Your task to perform on an android device: Open calendar and show me the second week of next month Image 0: 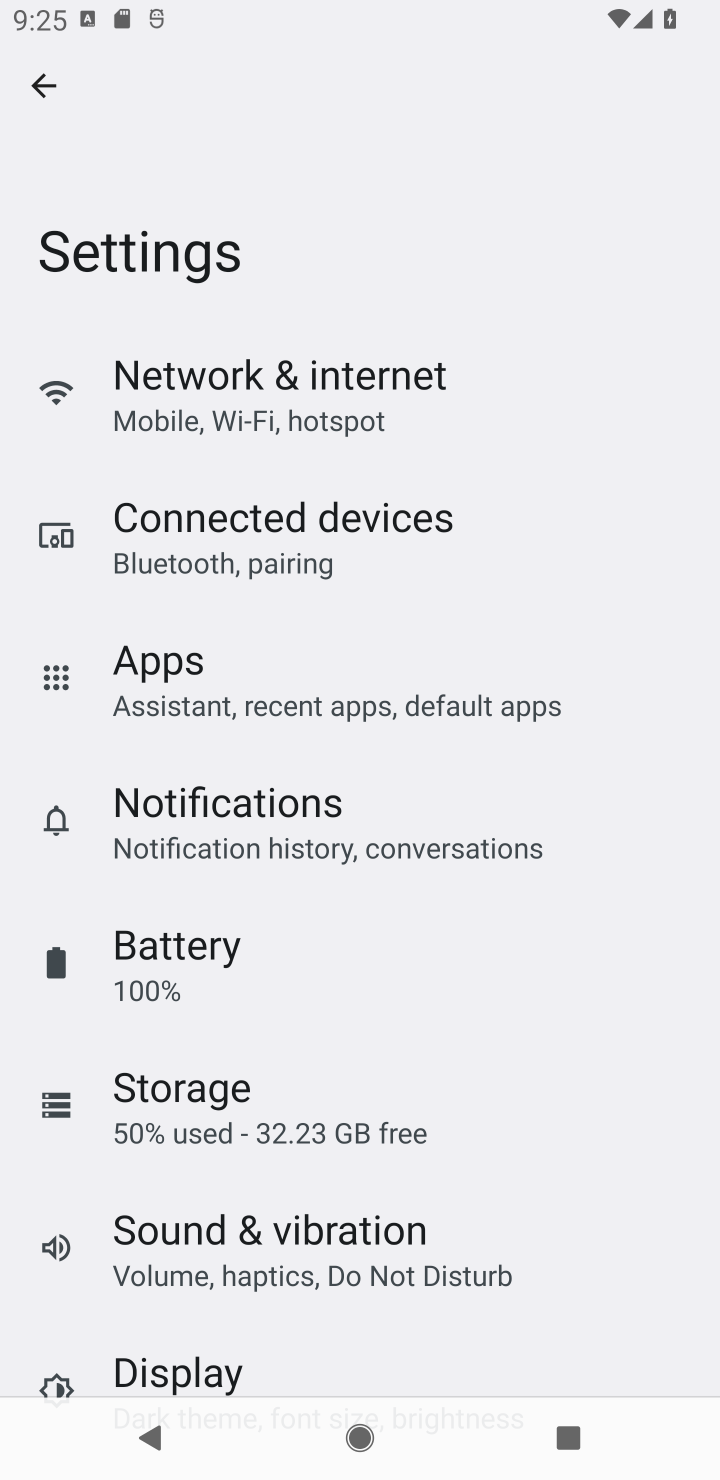
Step 0: press home button
Your task to perform on an android device: Open calendar and show me the second week of next month Image 1: 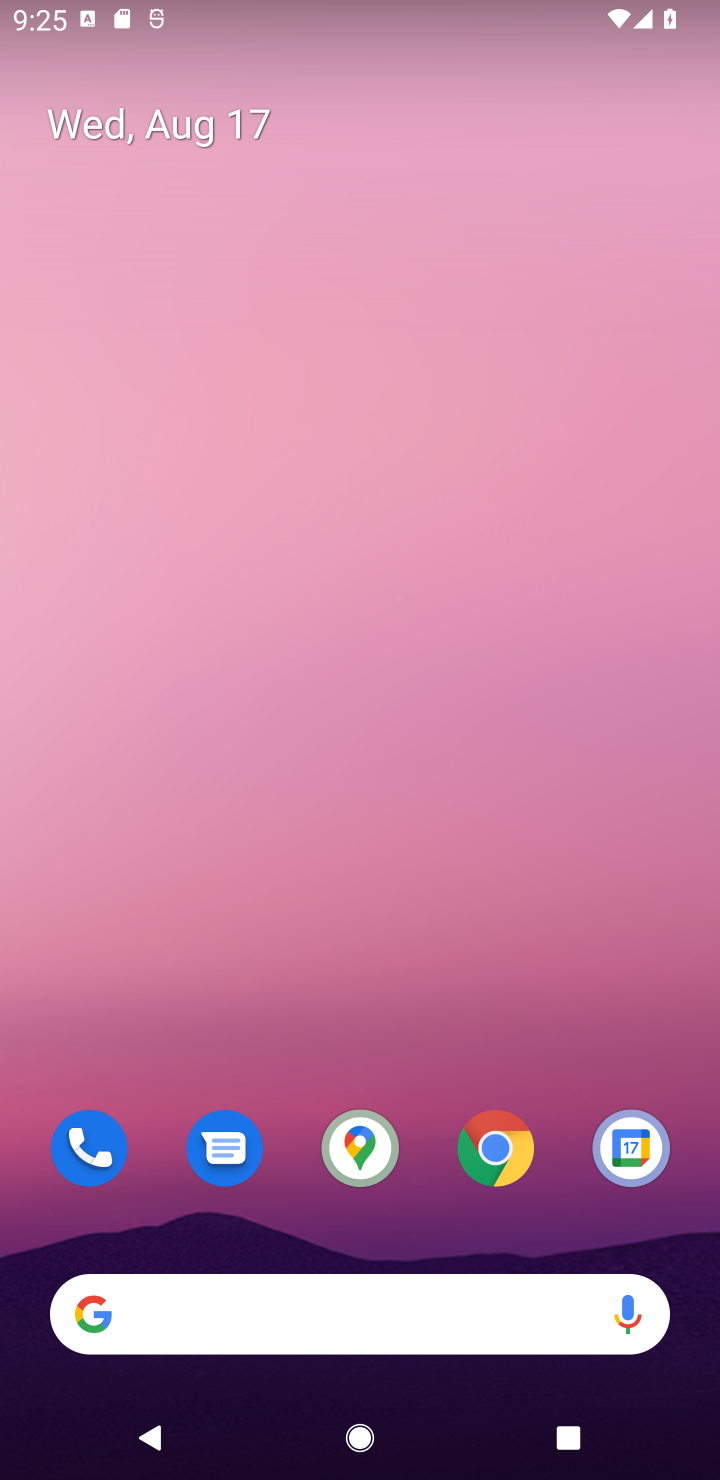
Step 1: click (633, 1147)
Your task to perform on an android device: Open calendar and show me the second week of next month Image 2: 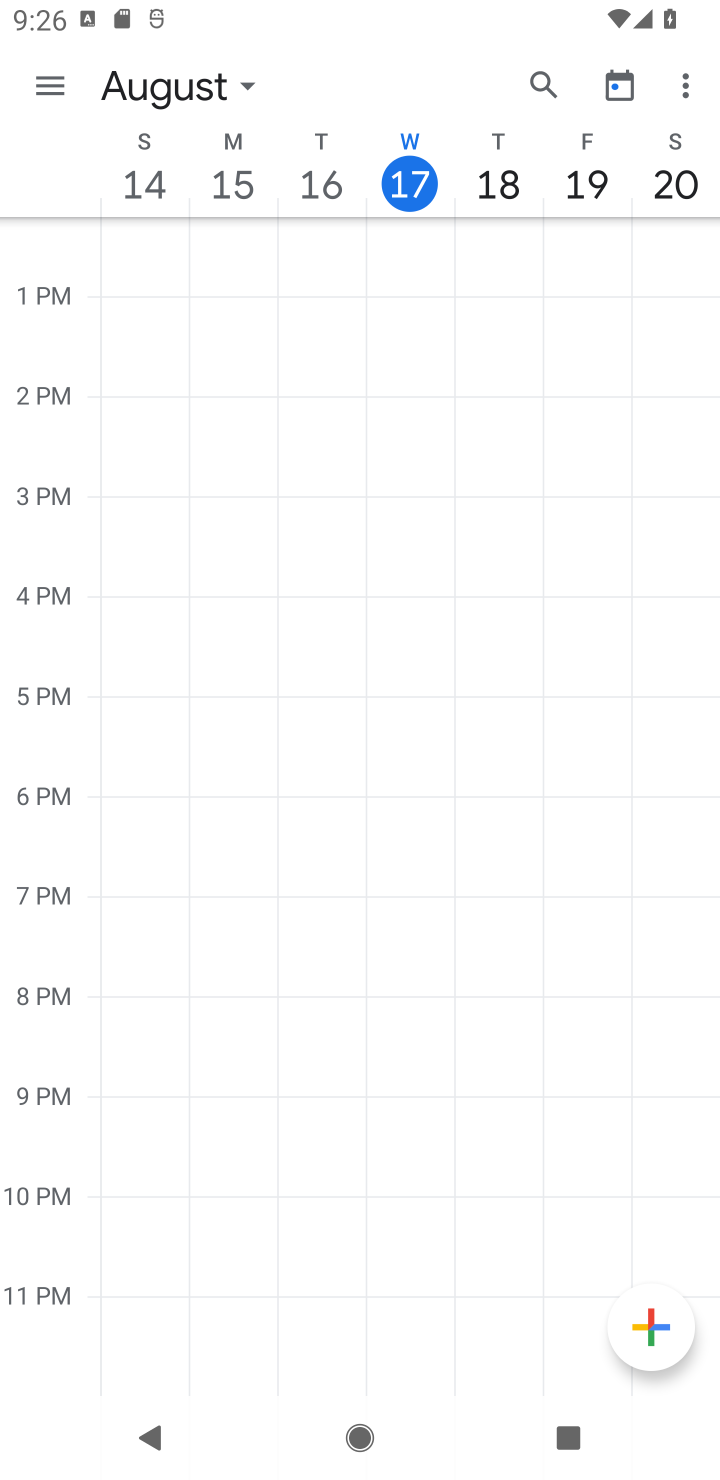
Step 2: click (246, 87)
Your task to perform on an android device: Open calendar and show me the second week of next month Image 3: 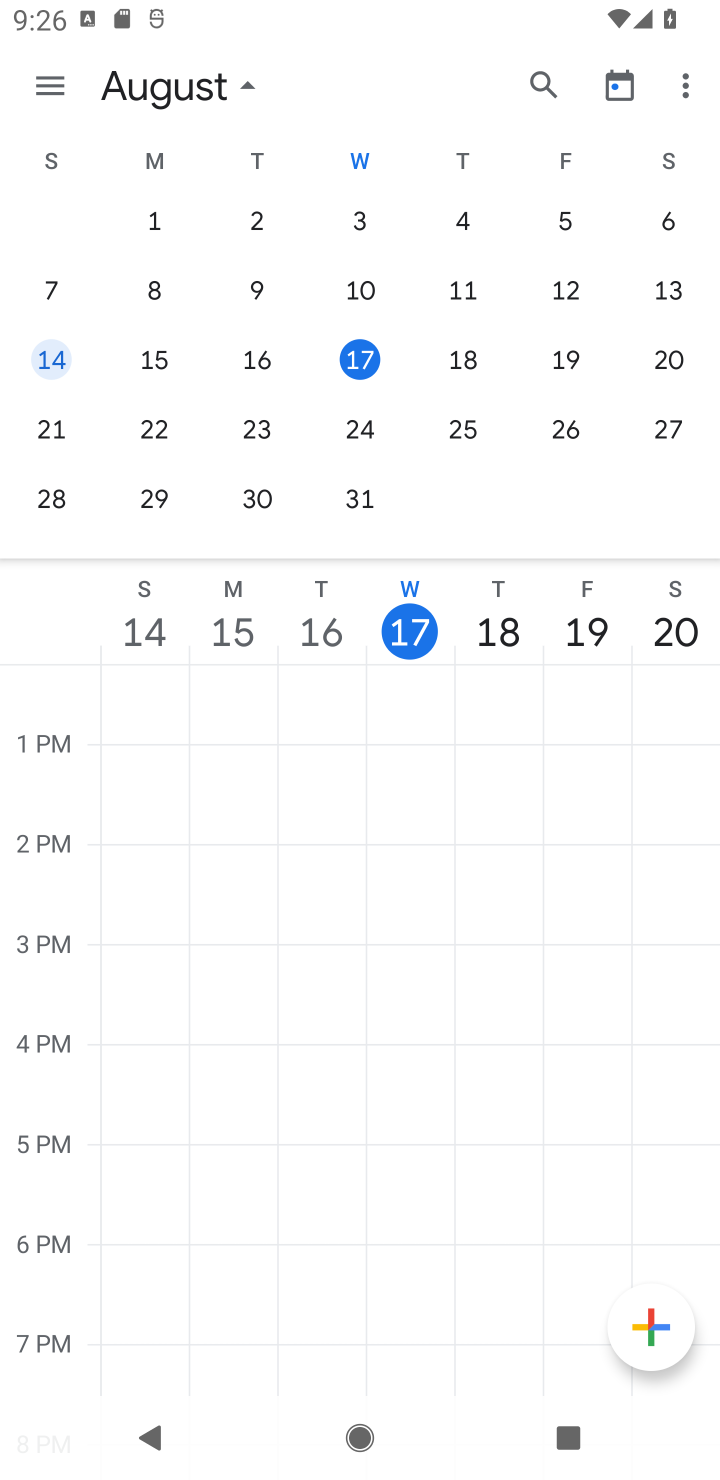
Step 3: click (654, 342)
Your task to perform on an android device: Open calendar and show me the second week of next month Image 4: 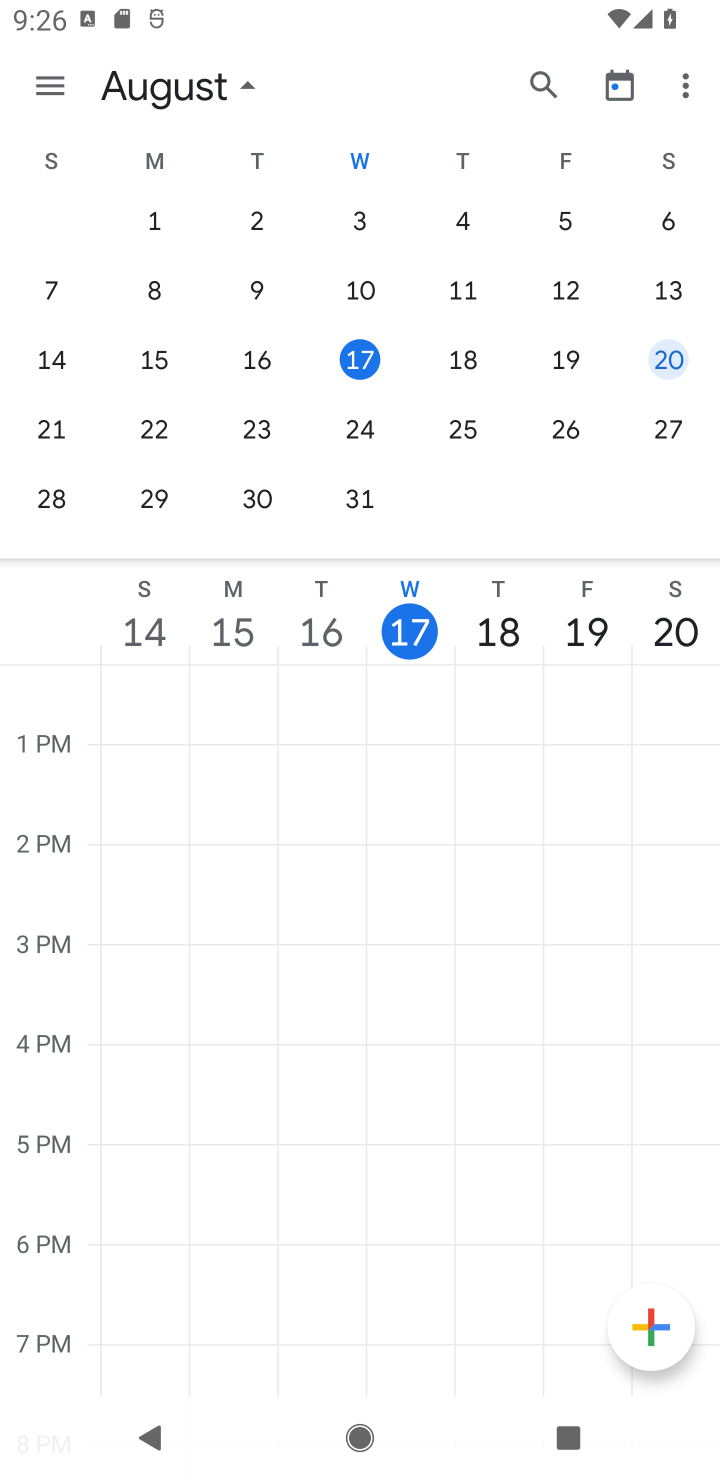
Step 4: drag from (669, 350) to (144, 347)
Your task to perform on an android device: Open calendar and show me the second week of next month Image 5: 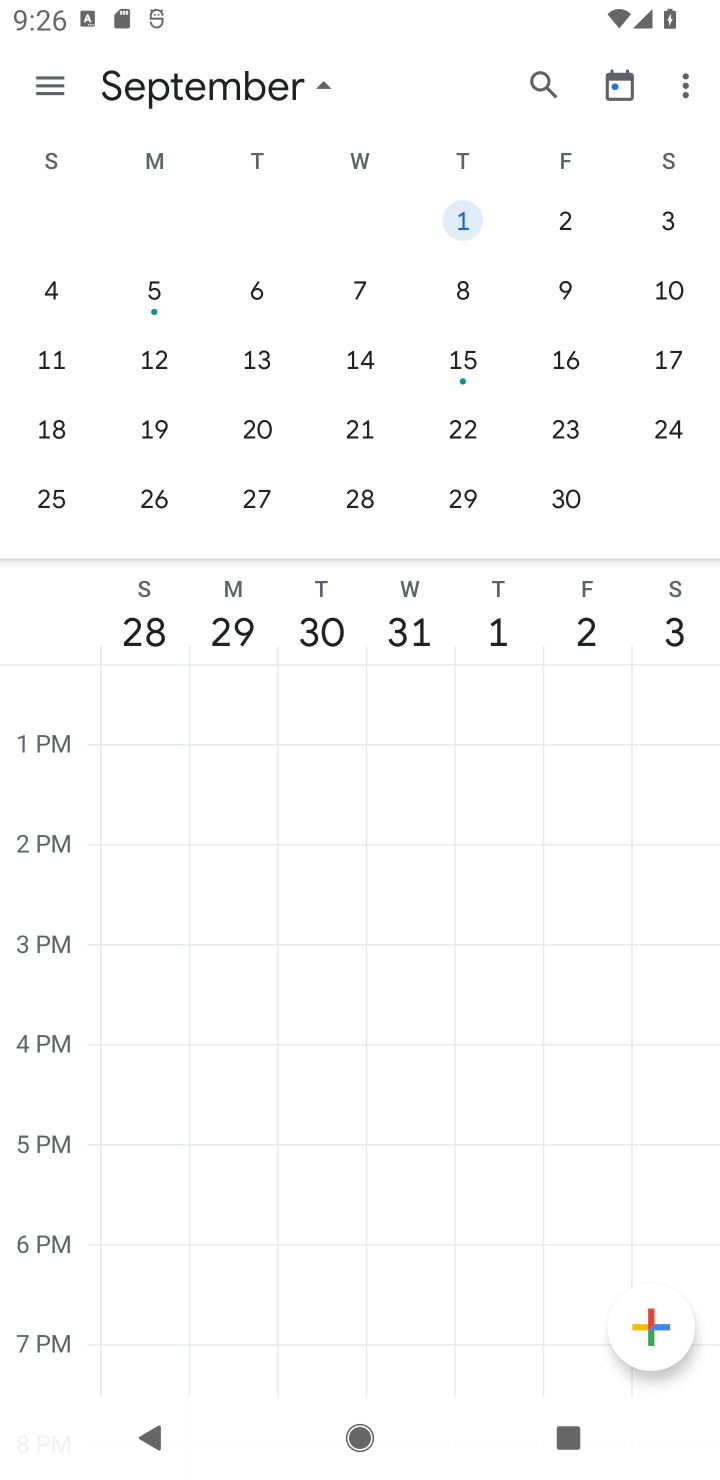
Step 5: click (36, 365)
Your task to perform on an android device: Open calendar and show me the second week of next month Image 6: 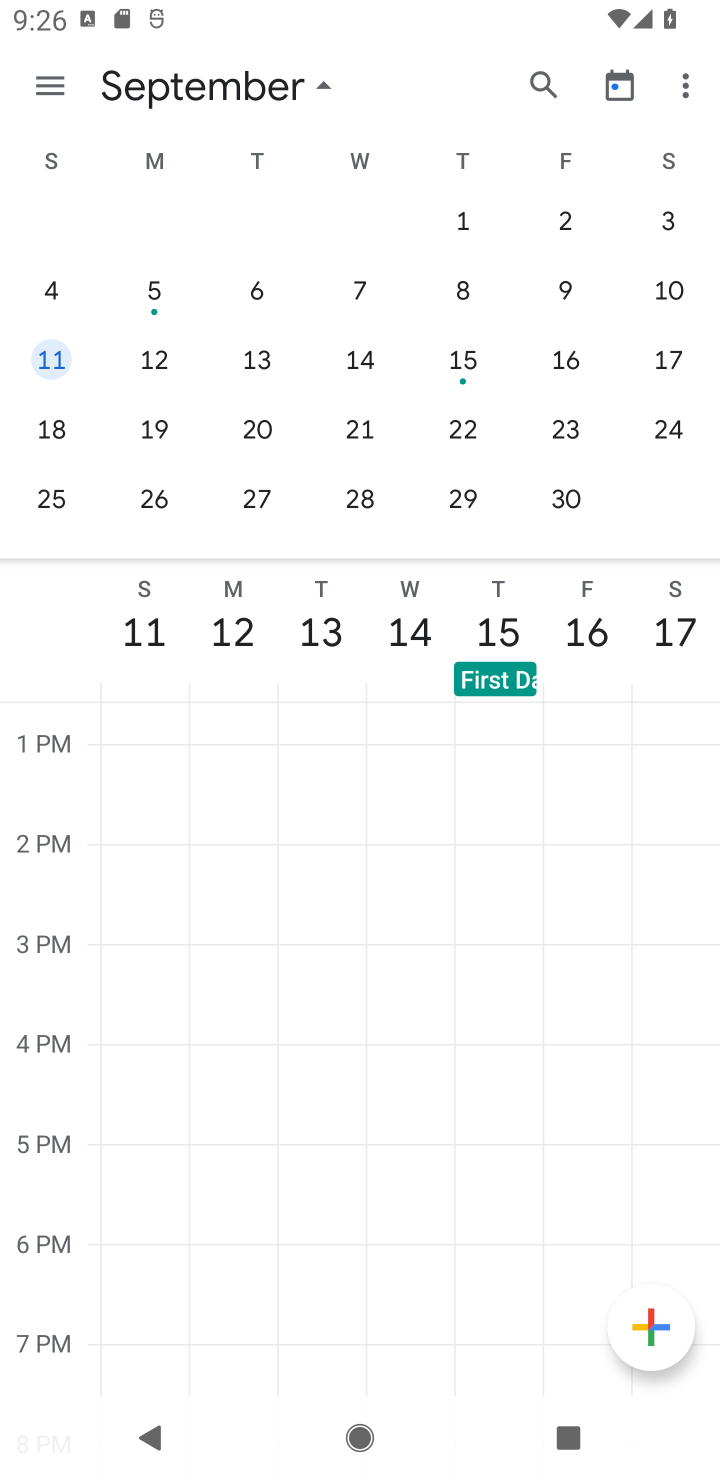
Step 6: task complete